Your task to perform on an android device: What's the weather going to be tomorrow? Image 0: 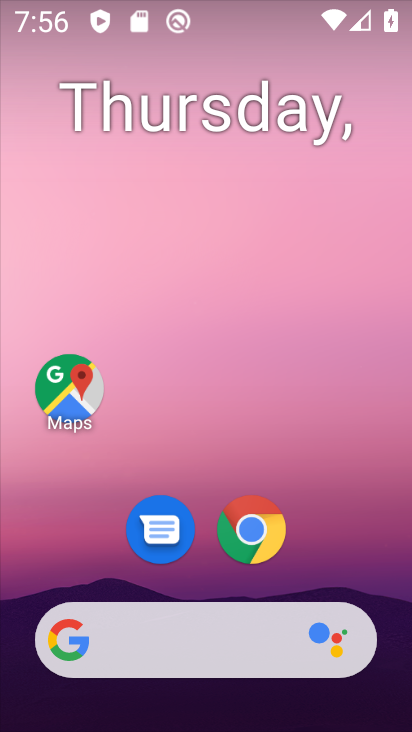
Step 0: drag from (275, 690) to (230, 323)
Your task to perform on an android device: What's the weather going to be tomorrow? Image 1: 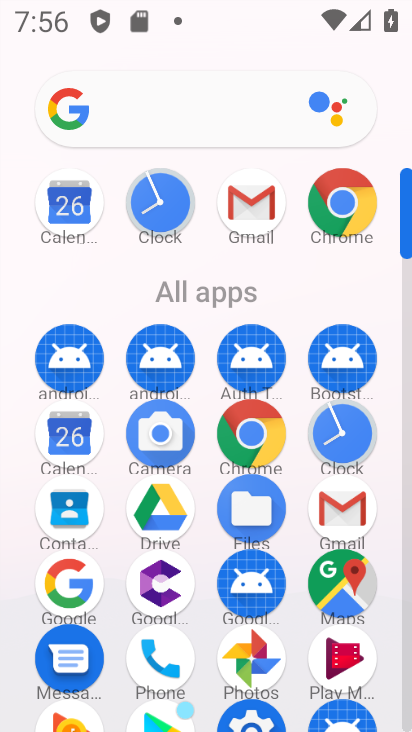
Step 1: click (70, 431)
Your task to perform on an android device: What's the weather going to be tomorrow? Image 2: 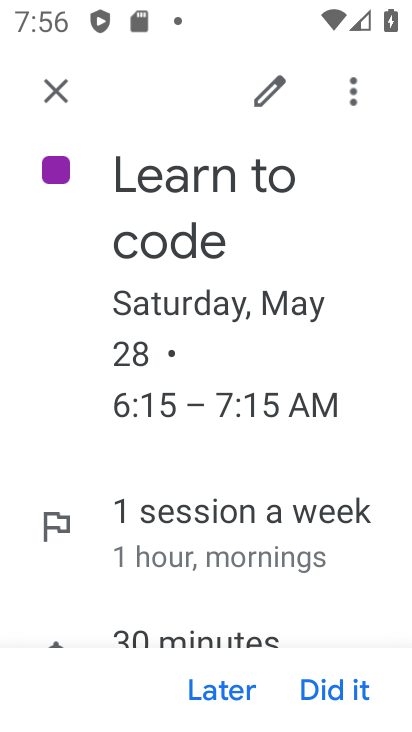
Step 2: press back button
Your task to perform on an android device: What's the weather going to be tomorrow? Image 3: 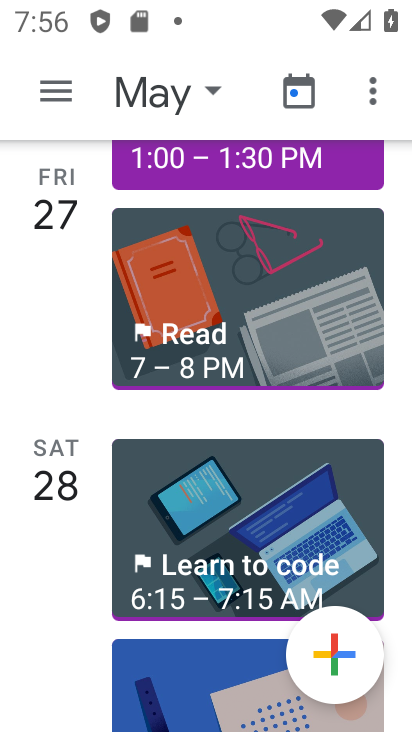
Step 3: press home button
Your task to perform on an android device: What's the weather going to be tomorrow? Image 4: 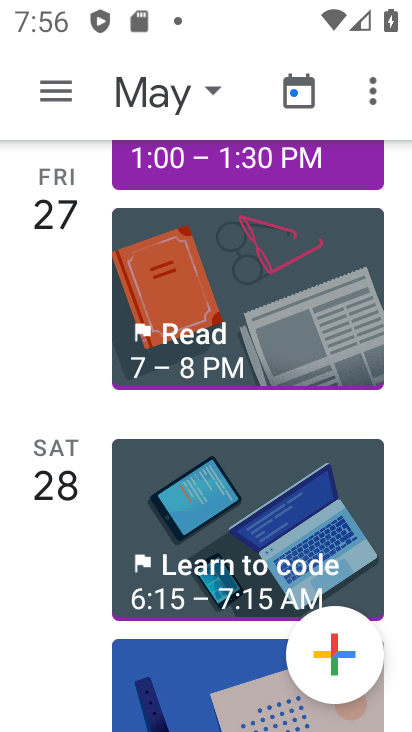
Step 4: press home button
Your task to perform on an android device: What's the weather going to be tomorrow? Image 5: 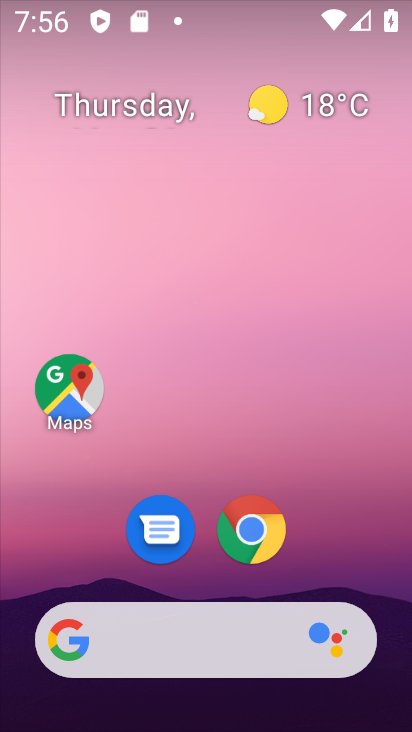
Step 5: click (218, 350)
Your task to perform on an android device: What's the weather going to be tomorrow? Image 6: 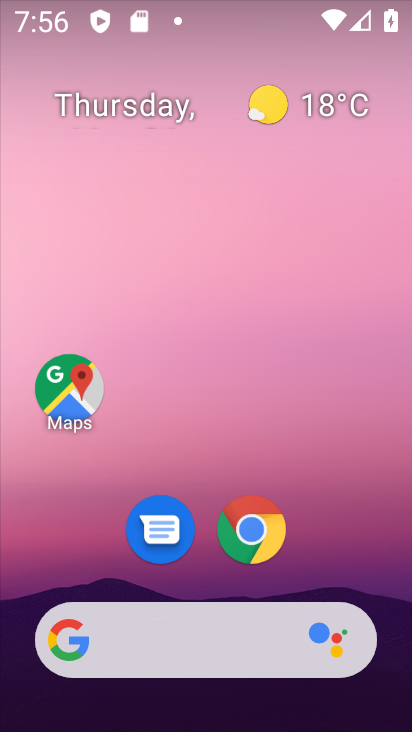
Step 6: drag from (4, 227) to (410, 517)
Your task to perform on an android device: What's the weather going to be tomorrow? Image 7: 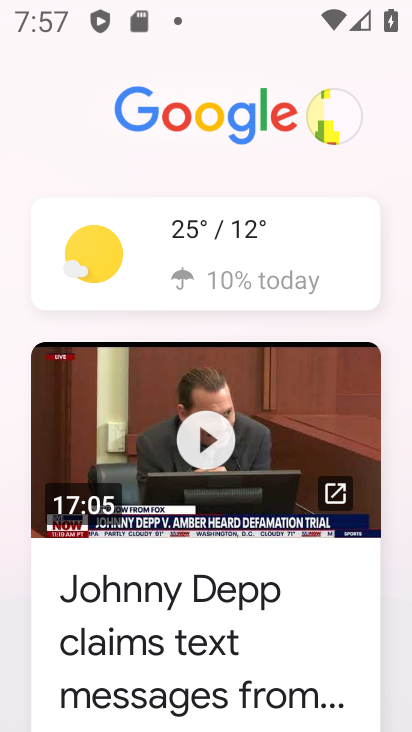
Step 7: click (157, 247)
Your task to perform on an android device: What's the weather going to be tomorrow? Image 8: 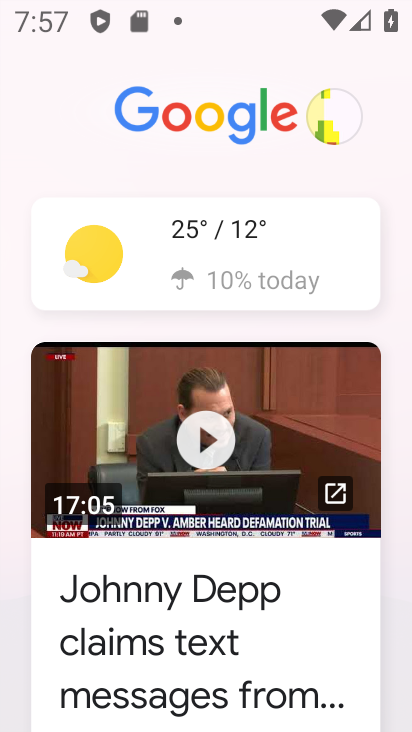
Step 8: click (159, 247)
Your task to perform on an android device: What's the weather going to be tomorrow? Image 9: 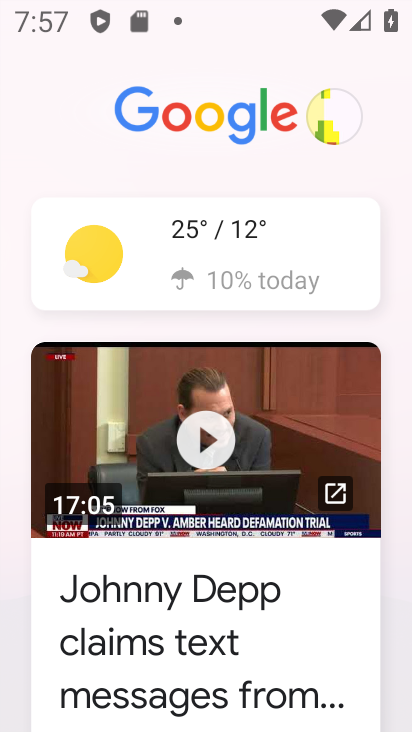
Step 9: click (159, 247)
Your task to perform on an android device: What's the weather going to be tomorrow? Image 10: 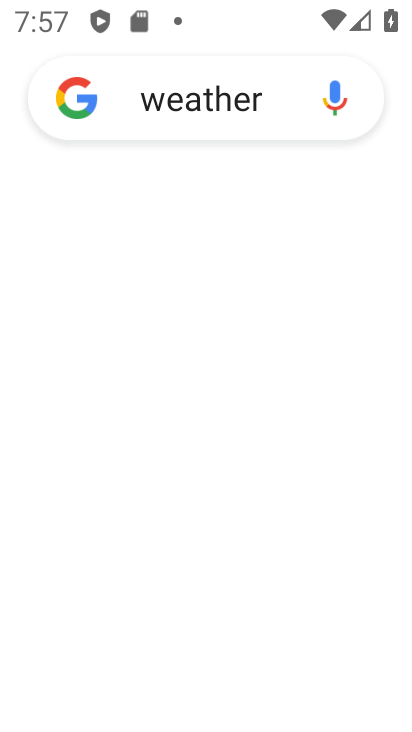
Step 10: click (164, 245)
Your task to perform on an android device: What's the weather going to be tomorrow? Image 11: 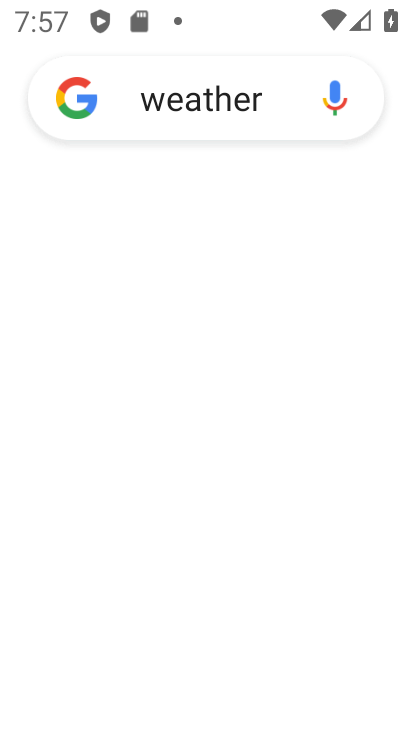
Step 11: click (164, 245)
Your task to perform on an android device: What's the weather going to be tomorrow? Image 12: 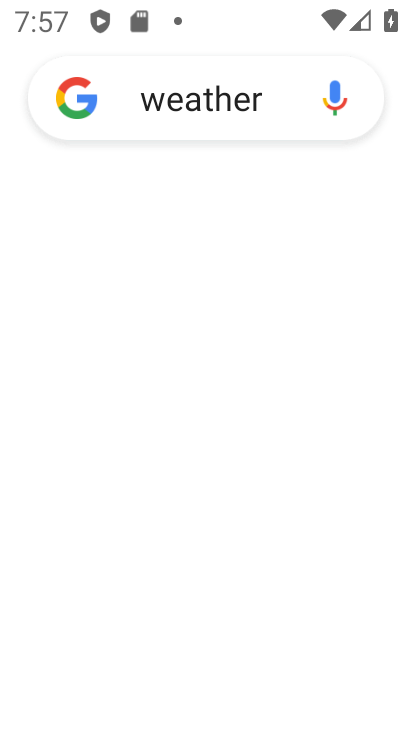
Step 12: click (164, 245)
Your task to perform on an android device: What's the weather going to be tomorrow? Image 13: 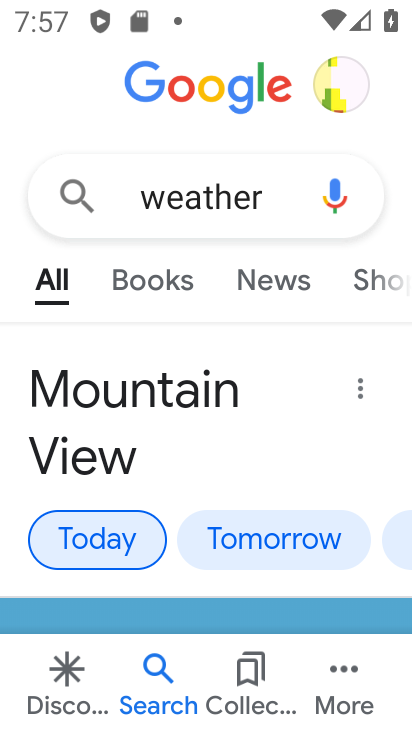
Step 13: click (252, 537)
Your task to perform on an android device: What's the weather going to be tomorrow? Image 14: 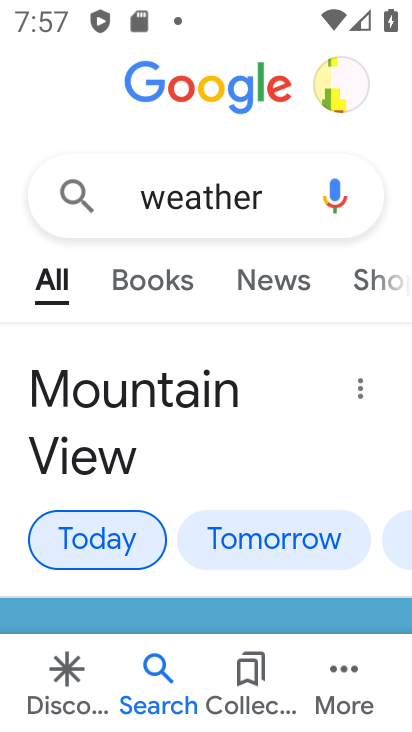
Step 14: click (252, 537)
Your task to perform on an android device: What's the weather going to be tomorrow? Image 15: 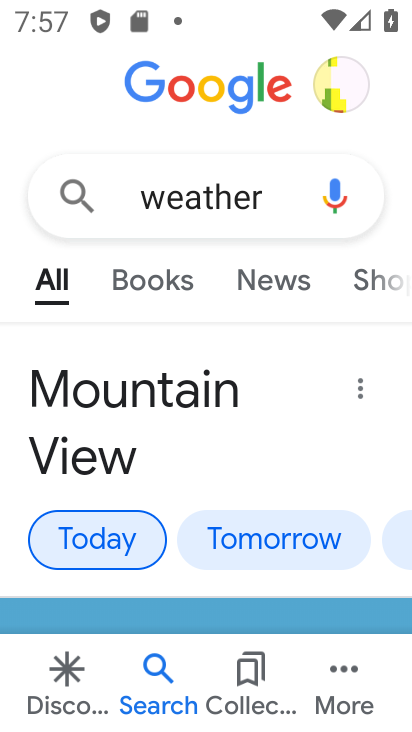
Step 15: click (252, 537)
Your task to perform on an android device: What's the weather going to be tomorrow? Image 16: 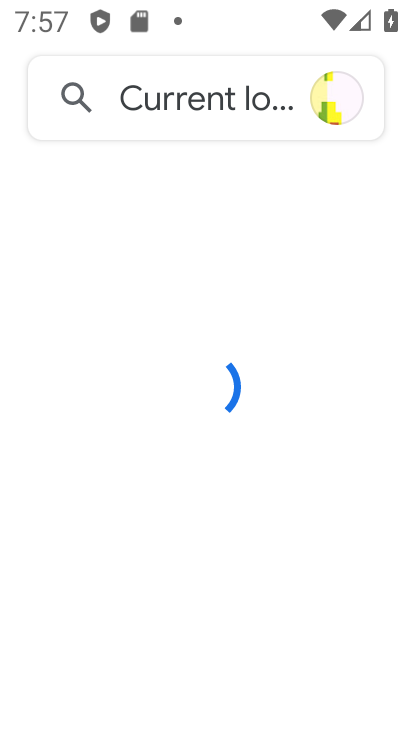
Step 16: click (252, 537)
Your task to perform on an android device: What's the weather going to be tomorrow? Image 17: 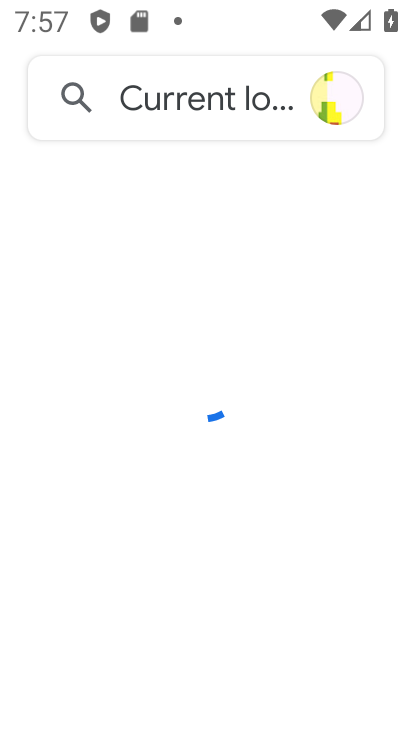
Step 17: click (252, 537)
Your task to perform on an android device: What's the weather going to be tomorrow? Image 18: 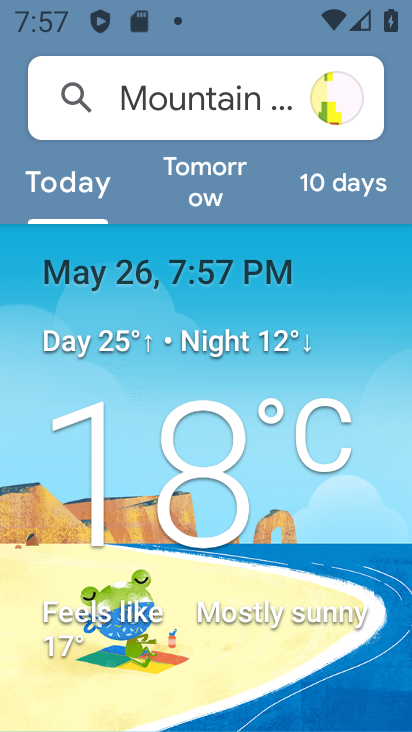
Step 18: task complete